Your task to perform on an android device: turn on bluetooth scan Image 0: 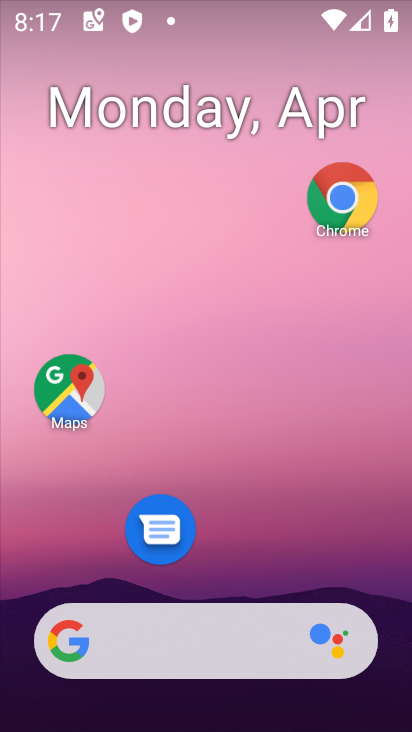
Step 0: drag from (240, 420) to (291, 1)
Your task to perform on an android device: turn on bluetooth scan Image 1: 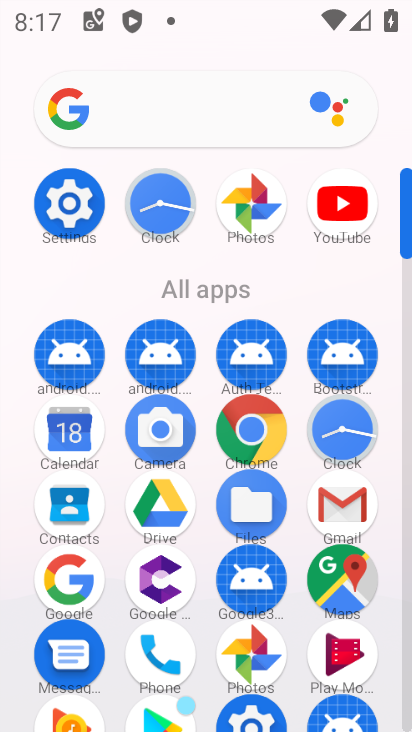
Step 1: click (104, 192)
Your task to perform on an android device: turn on bluetooth scan Image 2: 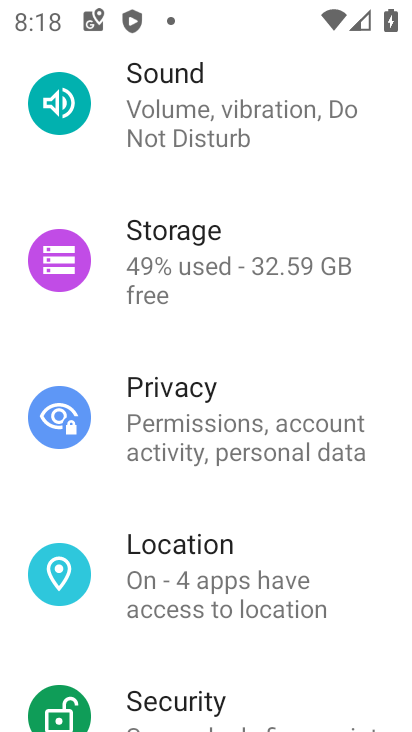
Step 2: drag from (266, 145) to (248, 613)
Your task to perform on an android device: turn on bluetooth scan Image 3: 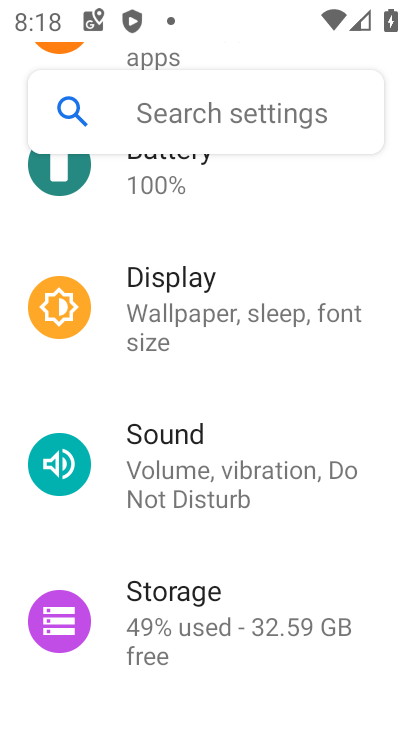
Step 3: drag from (211, 280) to (162, 719)
Your task to perform on an android device: turn on bluetooth scan Image 4: 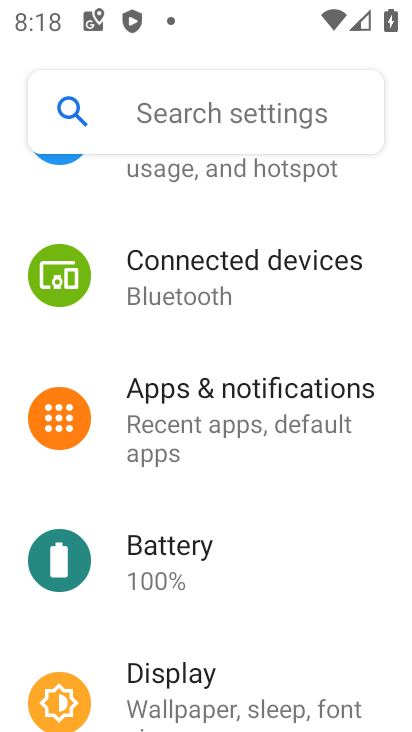
Step 4: click (183, 290)
Your task to perform on an android device: turn on bluetooth scan Image 5: 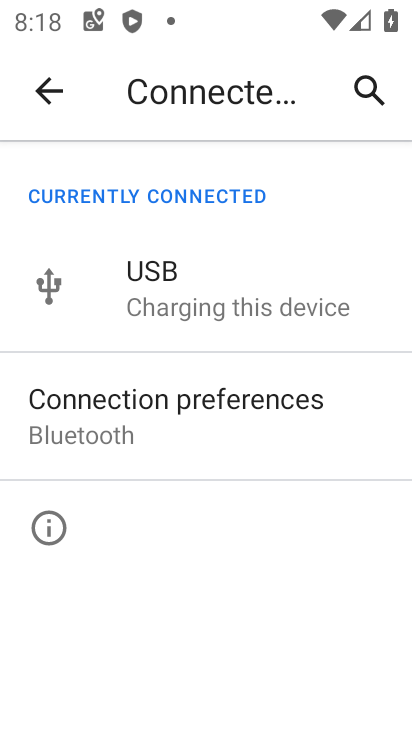
Step 5: click (159, 409)
Your task to perform on an android device: turn on bluetooth scan Image 6: 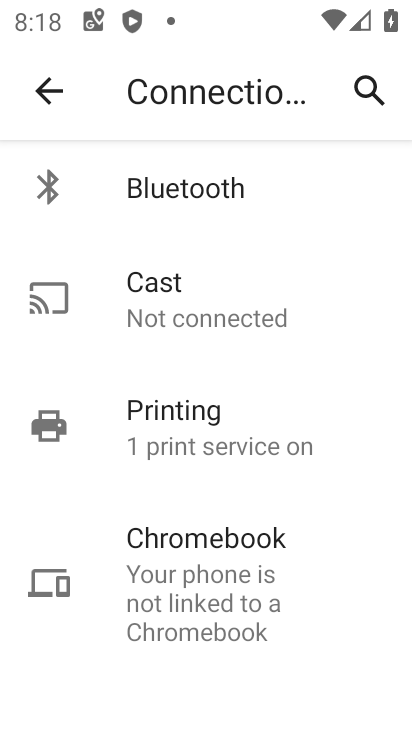
Step 6: click (209, 187)
Your task to perform on an android device: turn on bluetooth scan Image 7: 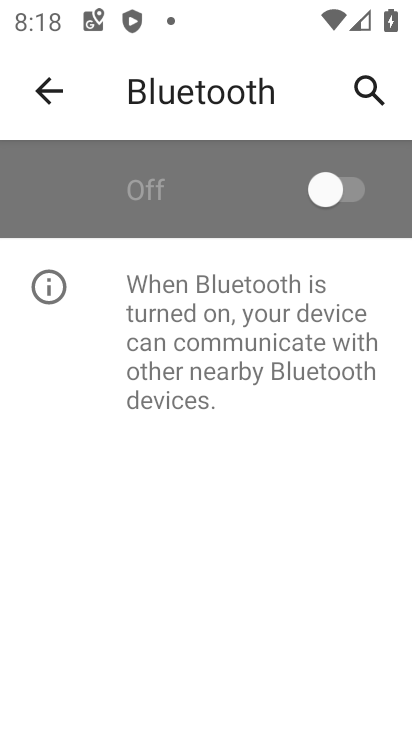
Step 7: click (322, 196)
Your task to perform on an android device: turn on bluetooth scan Image 8: 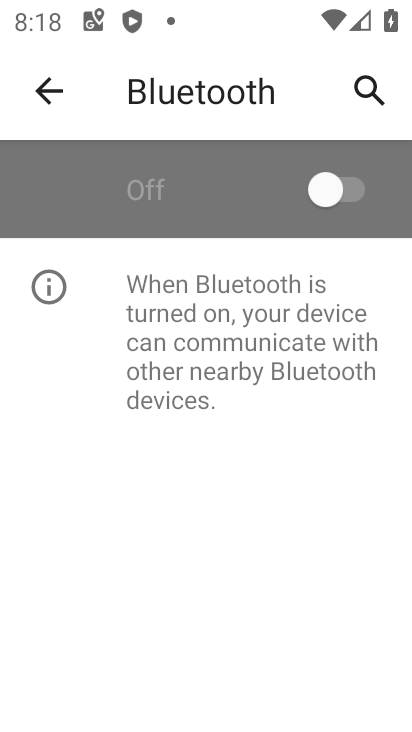
Step 8: task complete